Your task to perform on an android device: Open accessibility settings Image 0: 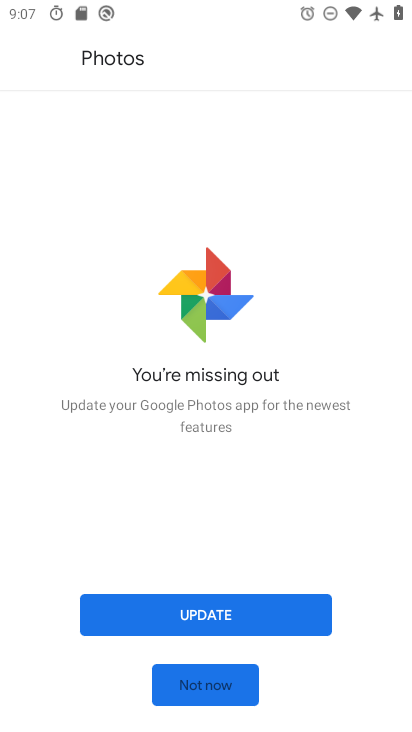
Step 0: press home button
Your task to perform on an android device: Open accessibility settings Image 1: 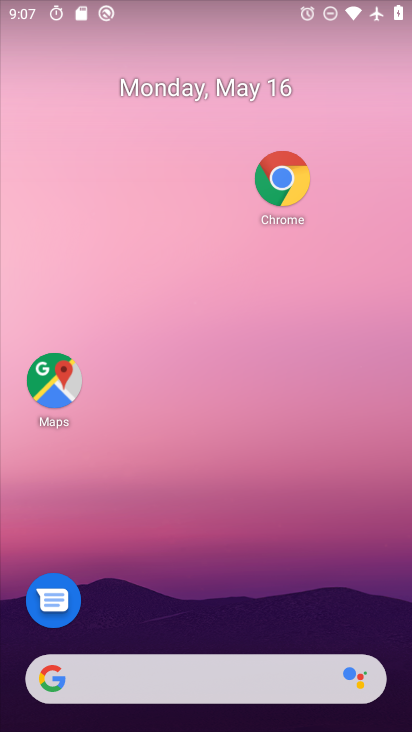
Step 1: drag from (166, 688) to (300, 75)
Your task to perform on an android device: Open accessibility settings Image 2: 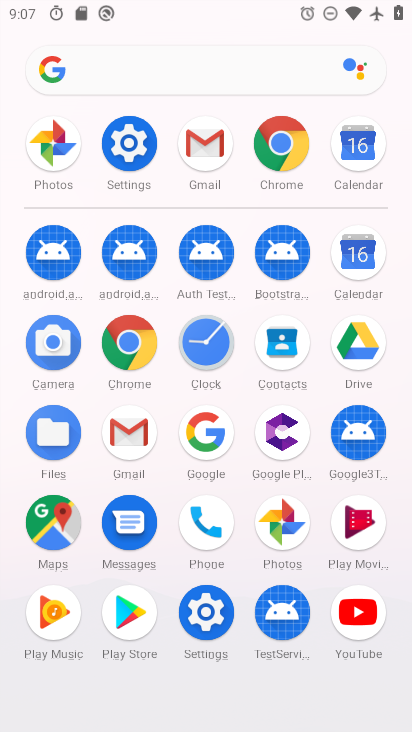
Step 2: click (125, 154)
Your task to perform on an android device: Open accessibility settings Image 3: 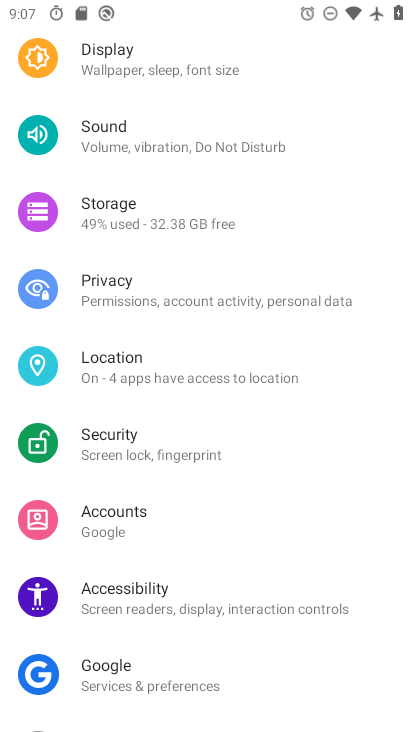
Step 3: click (127, 597)
Your task to perform on an android device: Open accessibility settings Image 4: 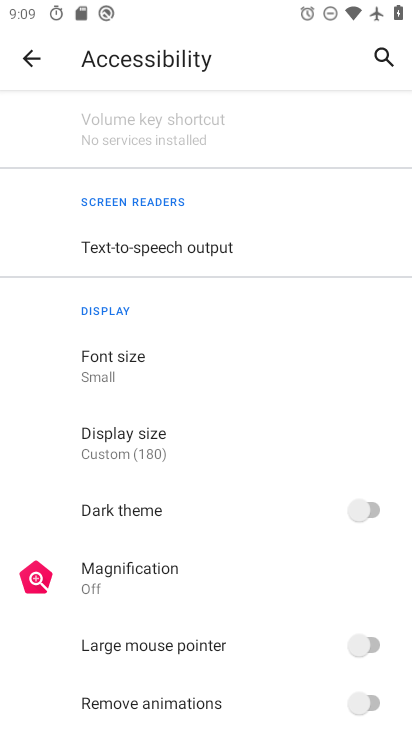
Step 4: task complete